Your task to perform on an android device: turn off notifications in google photos Image 0: 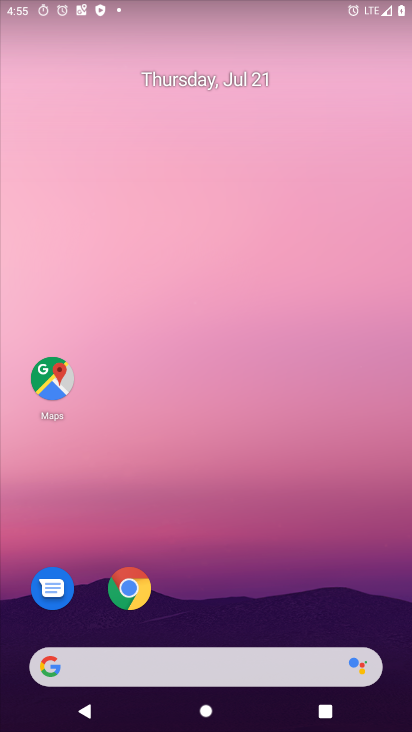
Step 0: drag from (261, 616) to (362, 7)
Your task to perform on an android device: turn off notifications in google photos Image 1: 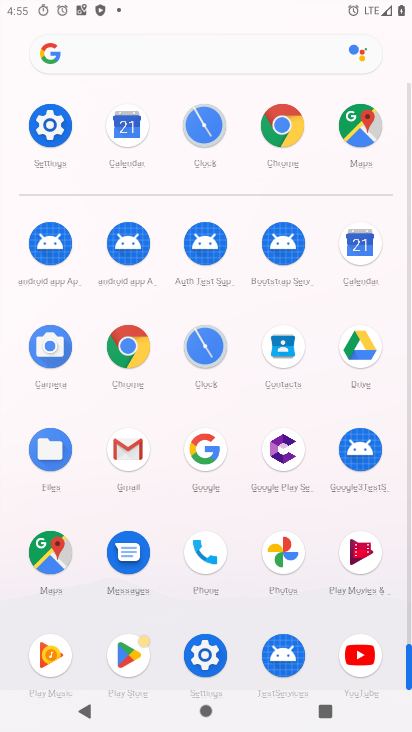
Step 1: click (282, 559)
Your task to perform on an android device: turn off notifications in google photos Image 2: 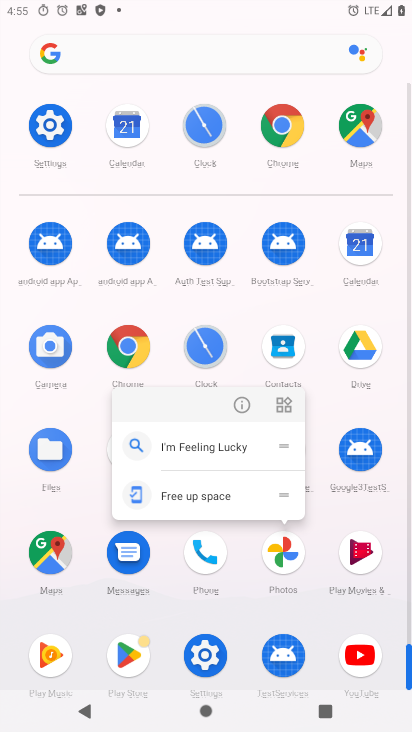
Step 2: click (238, 407)
Your task to perform on an android device: turn off notifications in google photos Image 3: 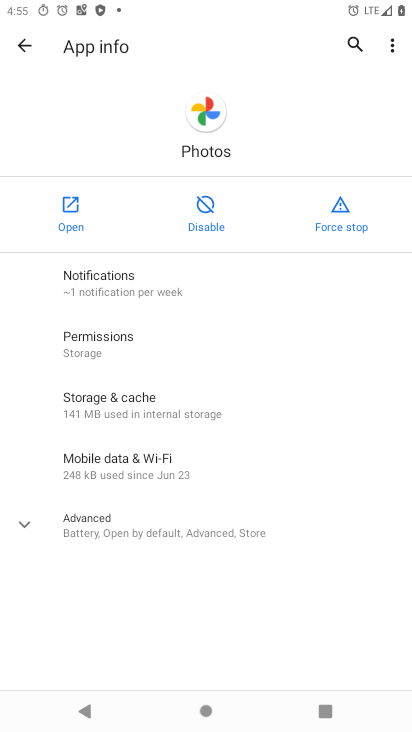
Step 3: click (74, 266)
Your task to perform on an android device: turn off notifications in google photos Image 4: 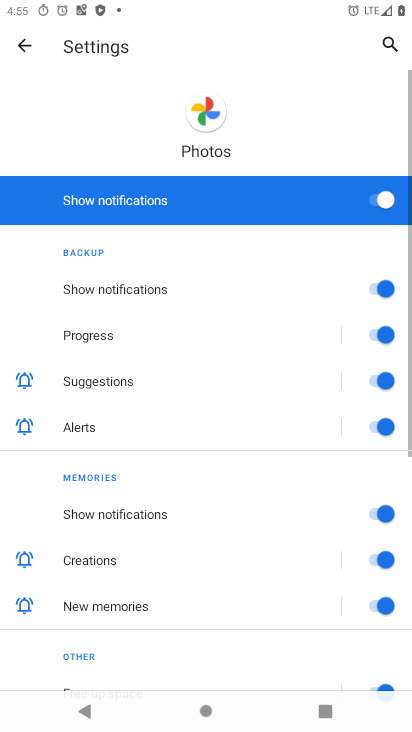
Step 4: click (348, 195)
Your task to perform on an android device: turn off notifications in google photos Image 5: 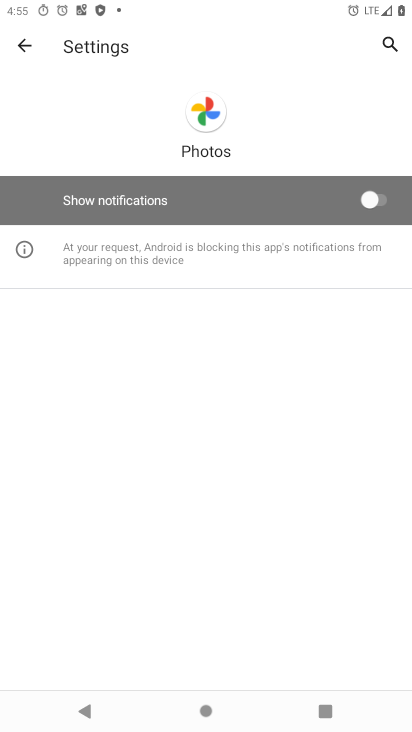
Step 5: task complete